Your task to perform on an android device: Open display settings Image 0: 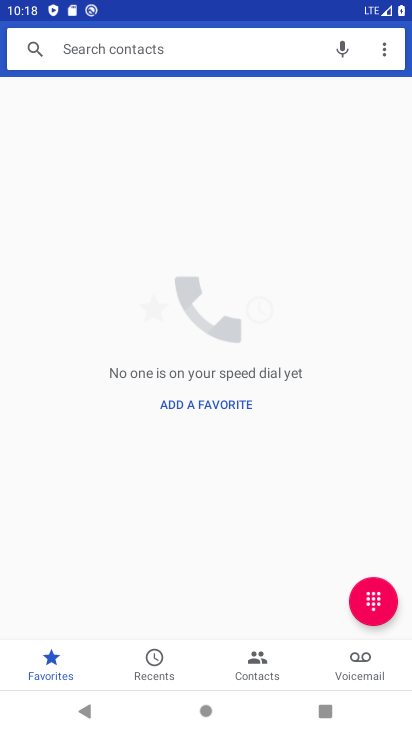
Step 0: press home button
Your task to perform on an android device: Open display settings Image 1: 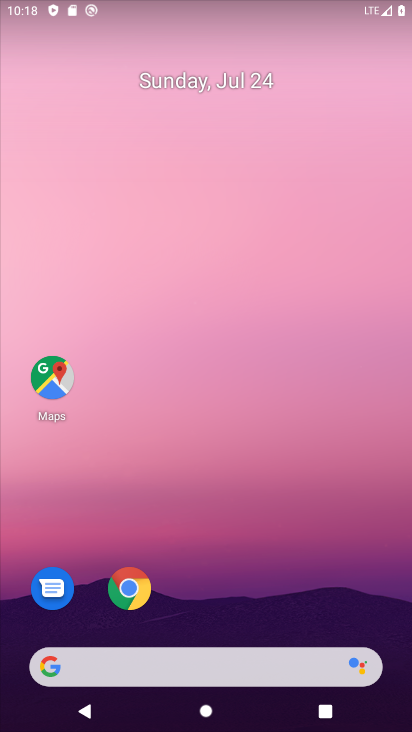
Step 1: drag from (276, 712) to (283, 148)
Your task to perform on an android device: Open display settings Image 2: 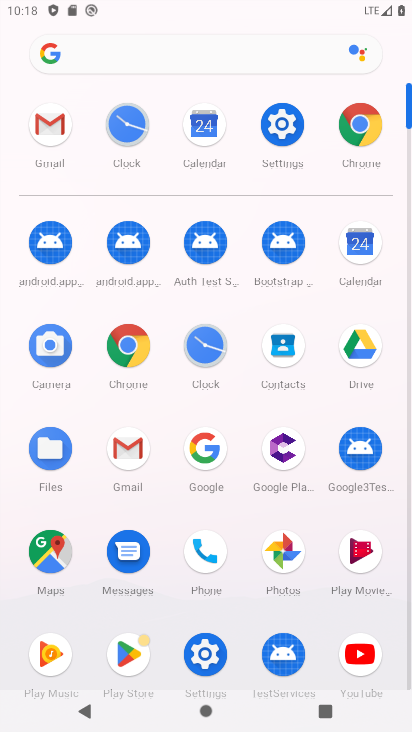
Step 2: click (274, 128)
Your task to perform on an android device: Open display settings Image 3: 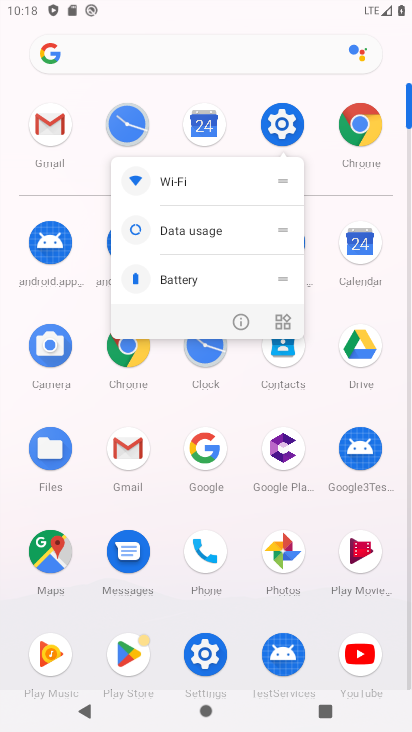
Step 3: click (274, 128)
Your task to perform on an android device: Open display settings Image 4: 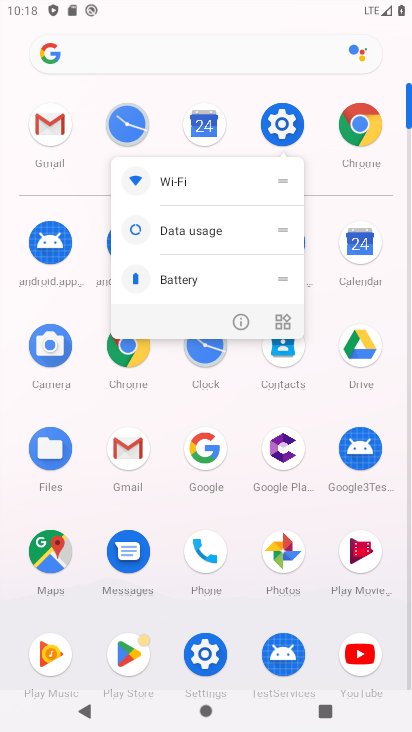
Step 4: click (274, 128)
Your task to perform on an android device: Open display settings Image 5: 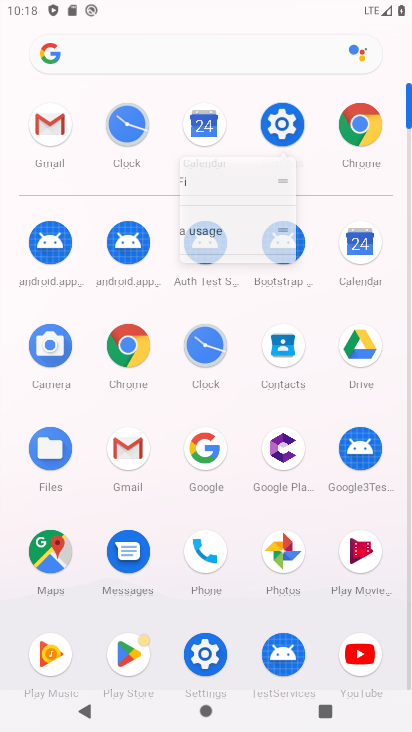
Step 5: click (274, 128)
Your task to perform on an android device: Open display settings Image 6: 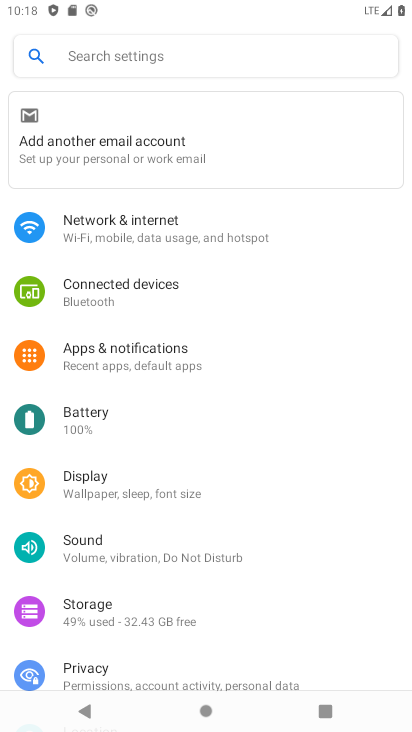
Step 6: click (115, 487)
Your task to perform on an android device: Open display settings Image 7: 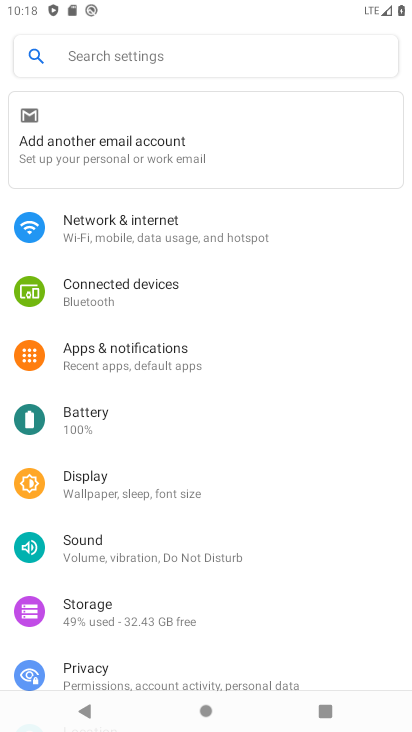
Step 7: click (115, 487)
Your task to perform on an android device: Open display settings Image 8: 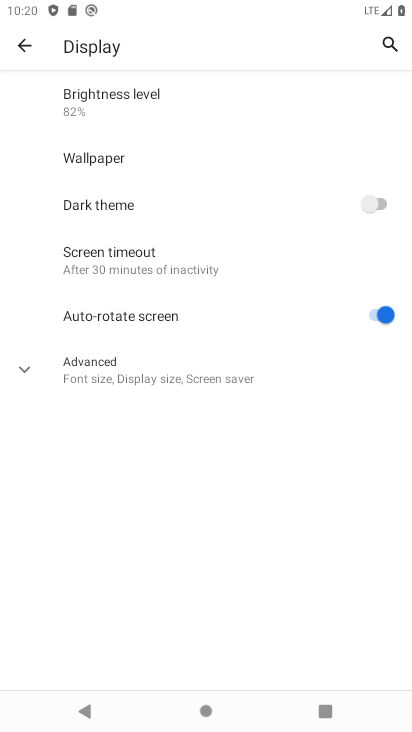
Step 8: task complete